Your task to perform on an android device: turn on wifi Image 0: 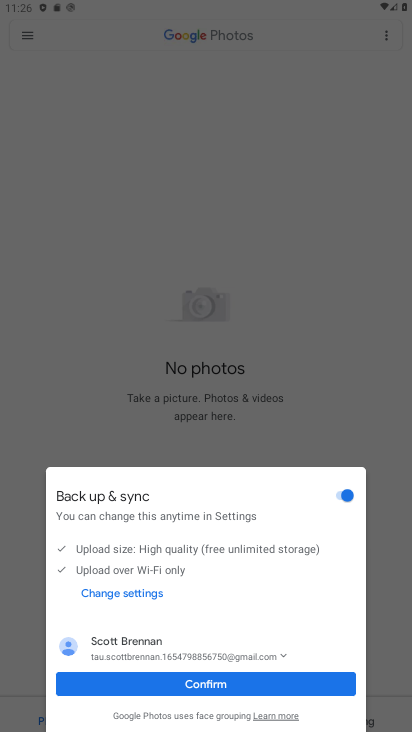
Step 0: press home button
Your task to perform on an android device: turn on wifi Image 1: 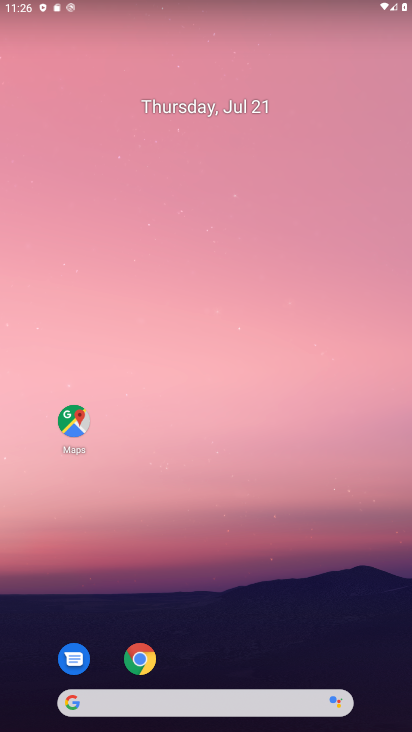
Step 1: drag from (263, 668) to (277, 162)
Your task to perform on an android device: turn on wifi Image 2: 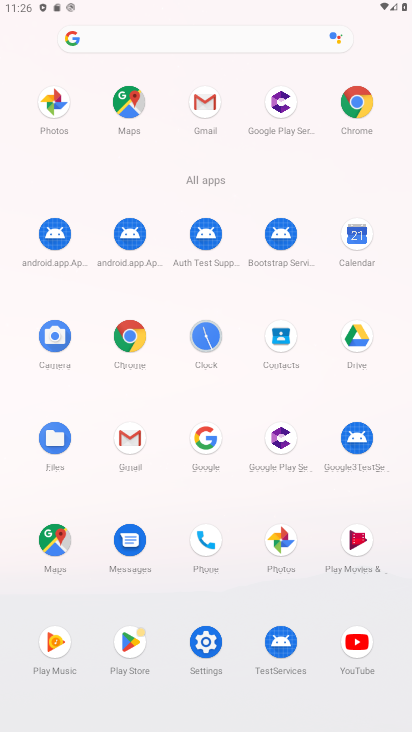
Step 2: click (208, 660)
Your task to perform on an android device: turn on wifi Image 3: 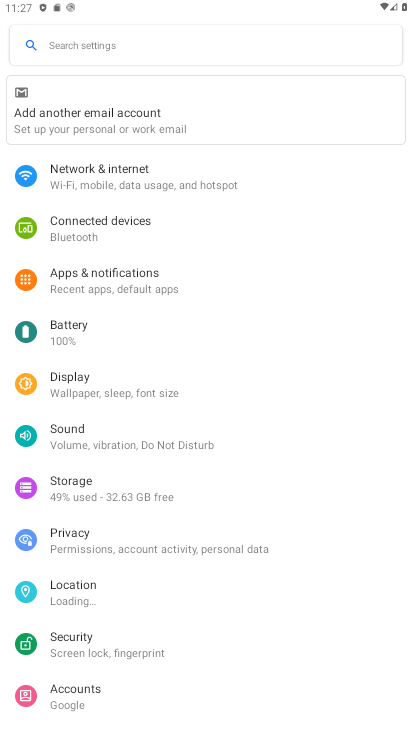
Step 3: click (152, 163)
Your task to perform on an android device: turn on wifi Image 4: 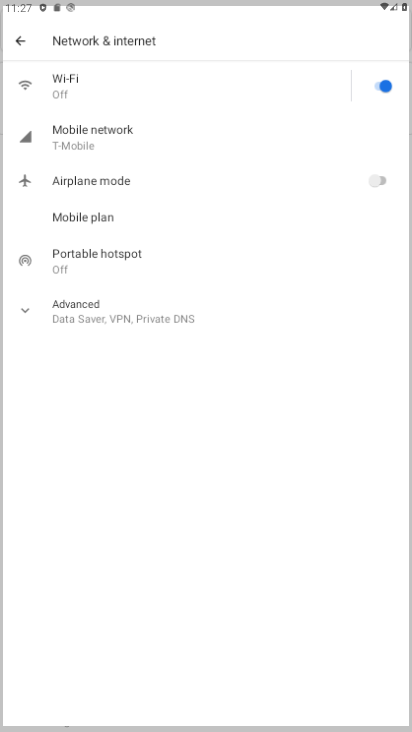
Step 4: task complete